Your task to perform on an android device: change timer sound Image 0: 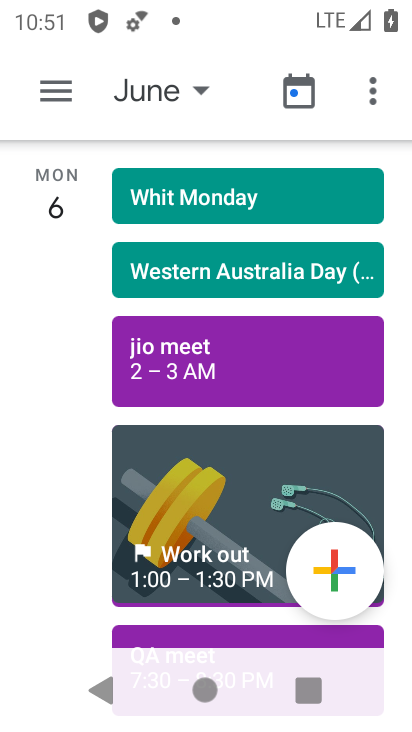
Step 0: press home button
Your task to perform on an android device: change timer sound Image 1: 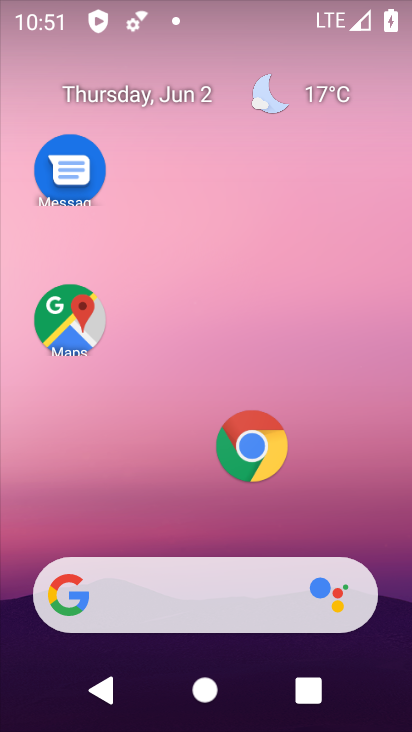
Step 1: drag from (318, 538) to (335, 149)
Your task to perform on an android device: change timer sound Image 2: 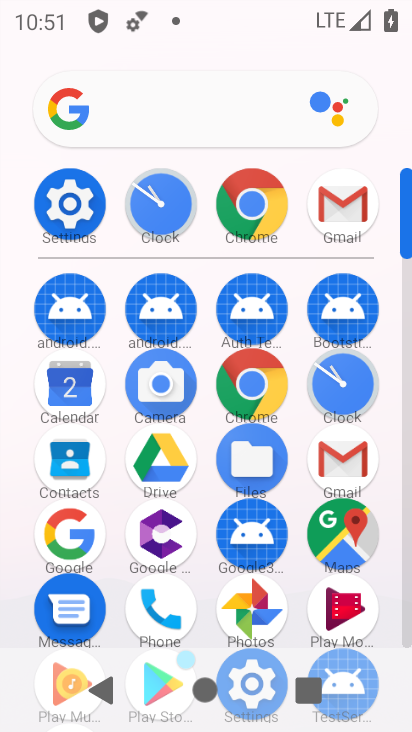
Step 2: click (170, 203)
Your task to perform on an android device: change timer sound Image 3: 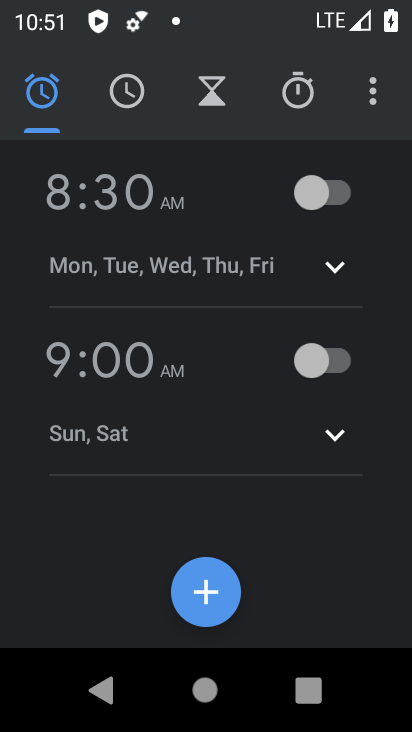
Step 3: click (373, 84)
Your task to perform on an android device: change timer sound Image 4: 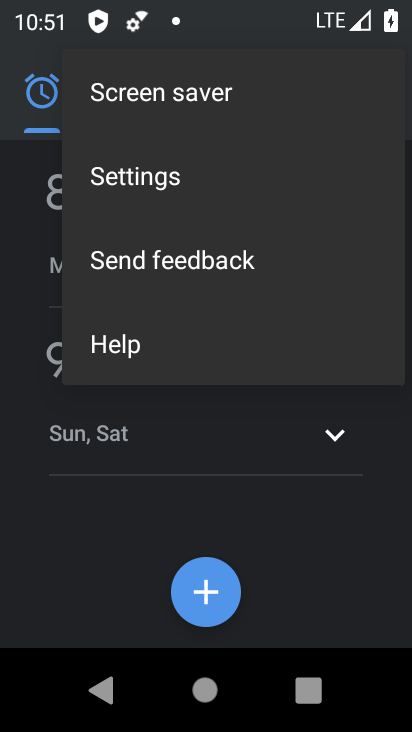
Step 4: click (145, 183)
Your task to perform on an android device: change timer sound Image 5: 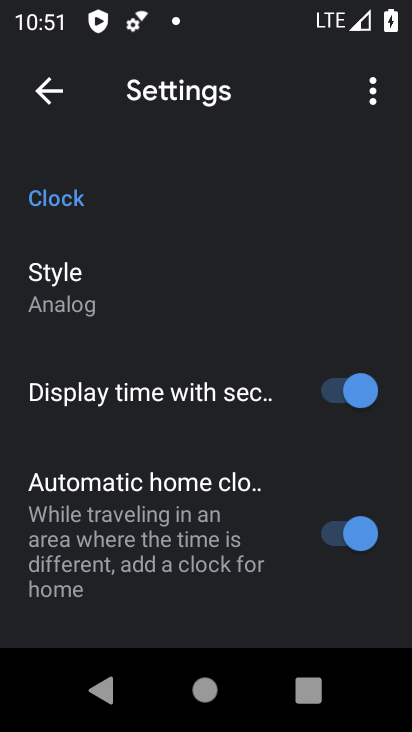
Step 5: drag from (312, 605) to (222, 4)
Your task to perform on an android device: change timer sound Image 6: 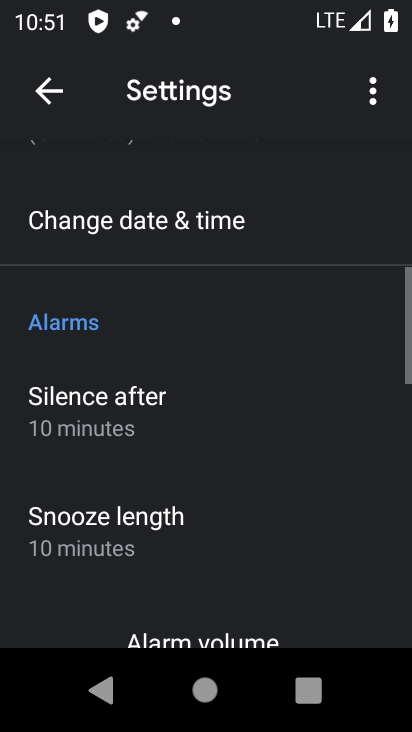
Step 6: drag from (225, 585) to (208, 280)
Your task to perform on an android device: change timer sound Image 7: 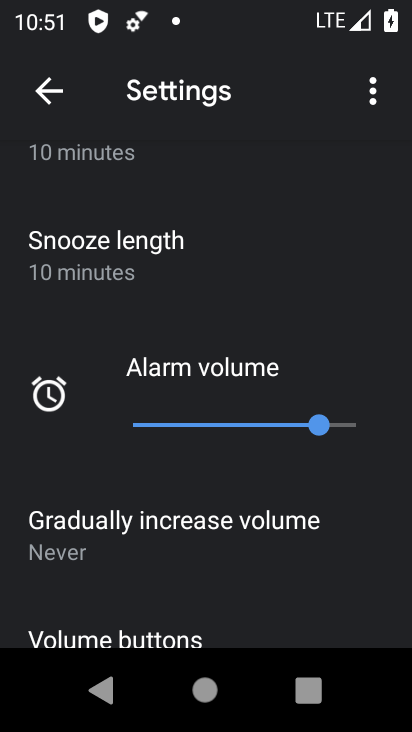
Step 7: drag from (213, 538) to (187, 232)
Your task to perform on an android device: change timer sound Image 8: 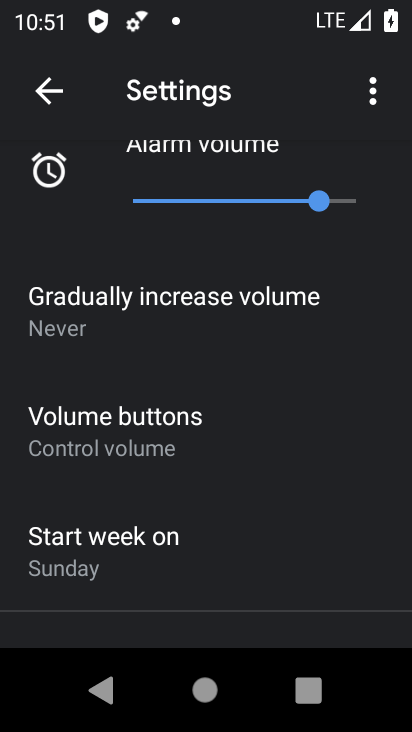
Step 8: drag from (183, 521) to (164, 115)
Your task to perform on an android device: change timer sound Image 9: 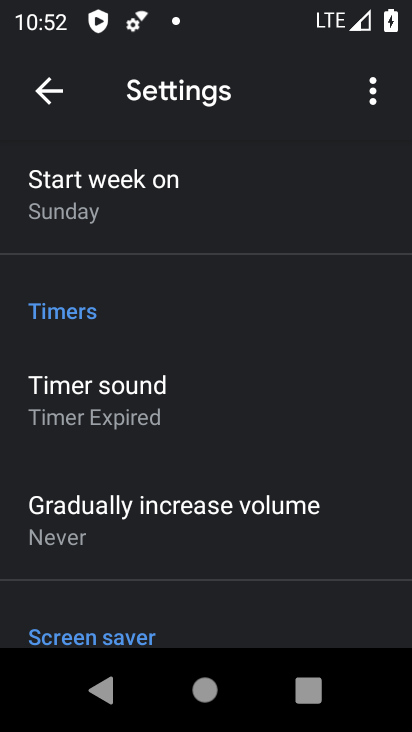
Step 9: click (130, 420)
Your task to perform on an android device: change timer sound Image 10: 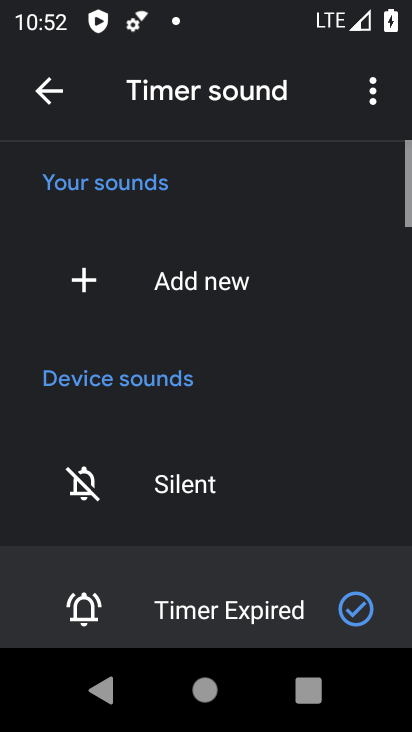
Step 10: drag from (178, 554) to (146, 183)
Your task to perform on an android device: change timer sound Image 11: 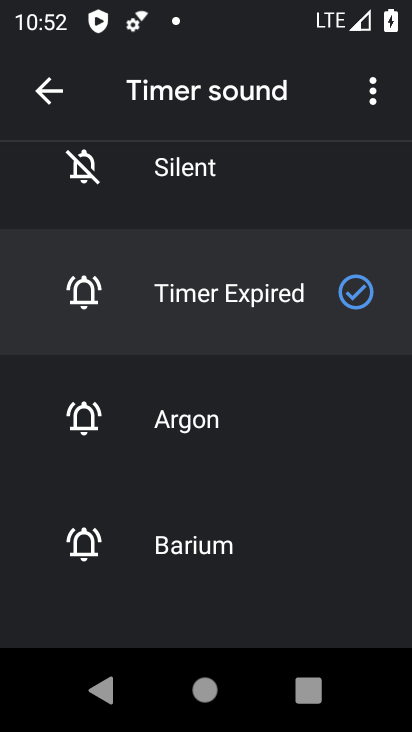
Step 11: click (140, 562)
Your task to perform on an android device: change timer sound Image 12: 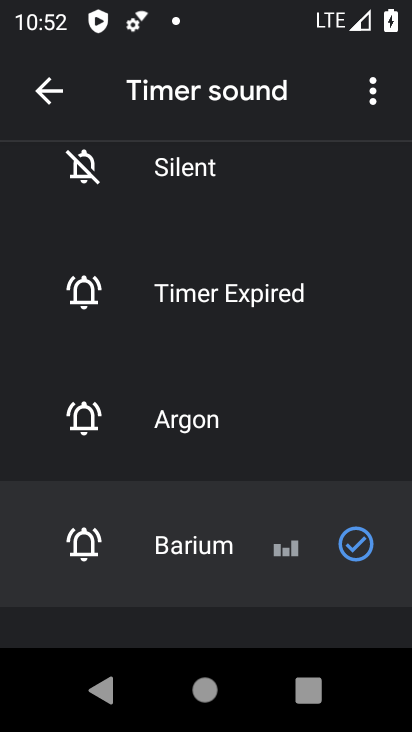
Step 12: task complete